Your task to perform on an android device: Go to calendar. Show me events next week Image 0: 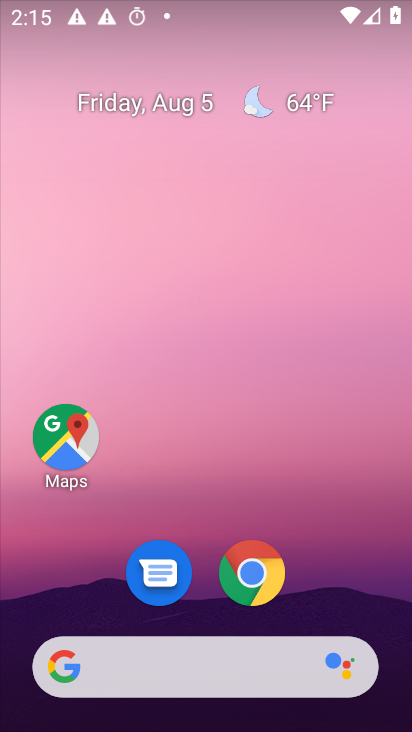
Step 0: press home button
Your task to perform on an android device: Go to calendar. Show me events next week Image 1: 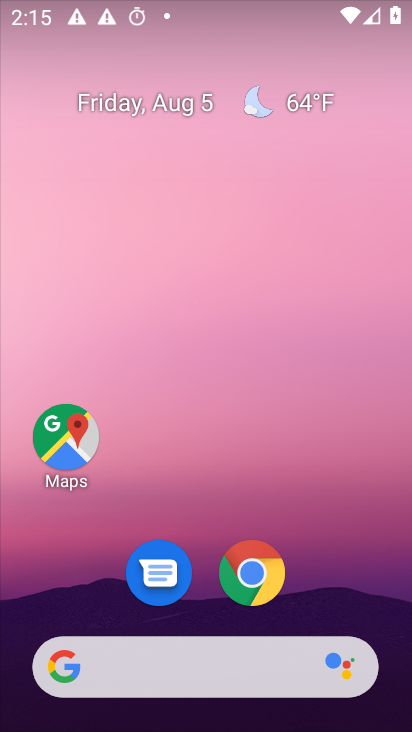
Step 1: drag from (351, 594) to (334, 233)
Your task to perform on an android device: Go to calendar. Show me events next week Image 2: 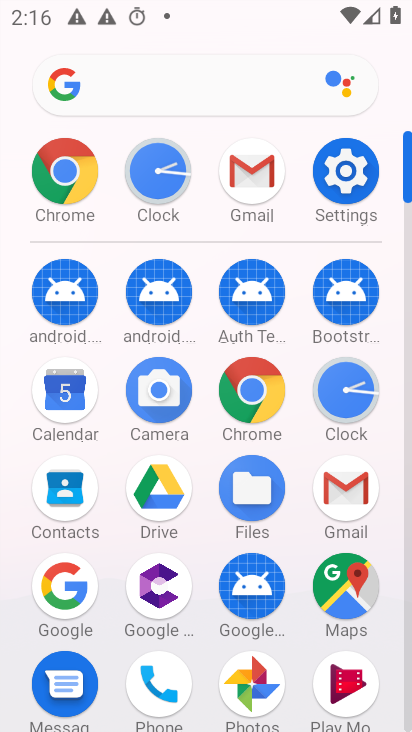
Step 2: click (76, 403)
Your task to perform on an android device: Go to calendar. Show me events next week Image 3: 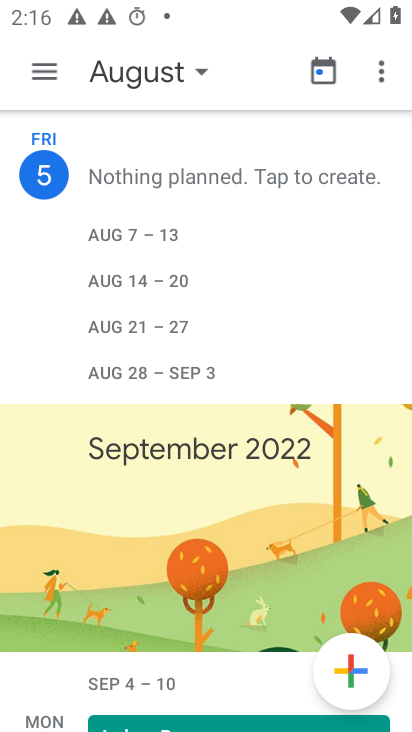
Step 3: click (196, 67)
Your task to perform on an android device: Go to calendar. Show me events next week Image 4: 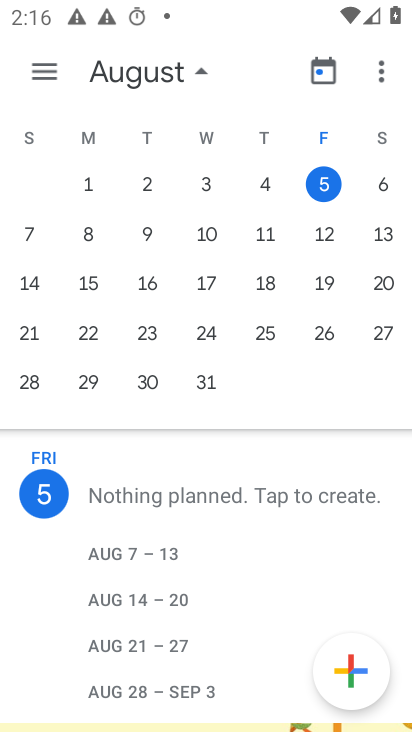
Step 4: click (94, 237)
Your task to perform on an android device: Go to calendar. Show me events next week Image 5: 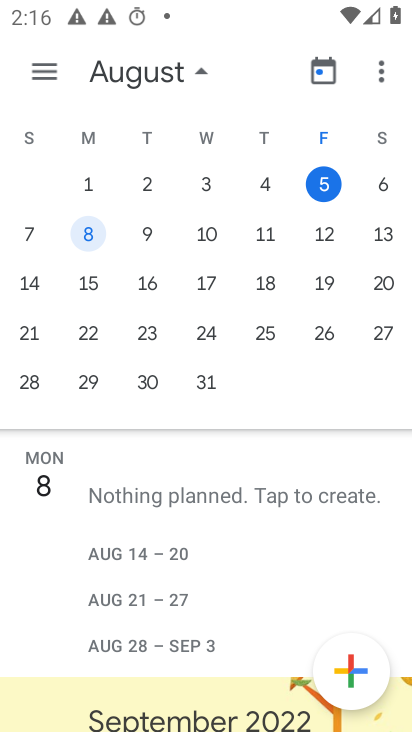
Step 5: task complete